Your task to perform on an android device: check google app version Image 0: 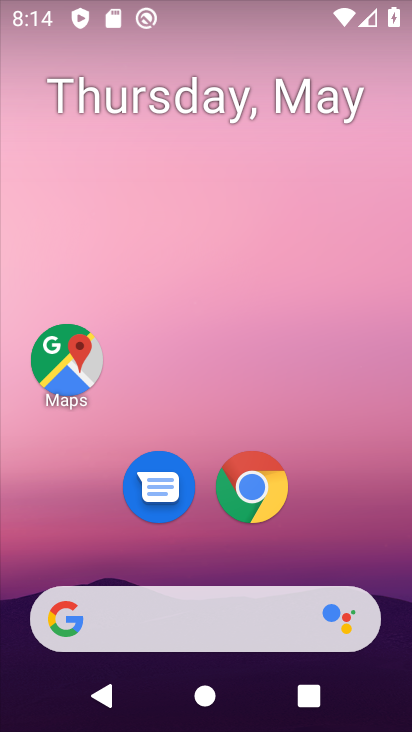
Step 0: drag from (355, 570) to (254, 8)
Your task to perform on an android device: check google app version Image 1: 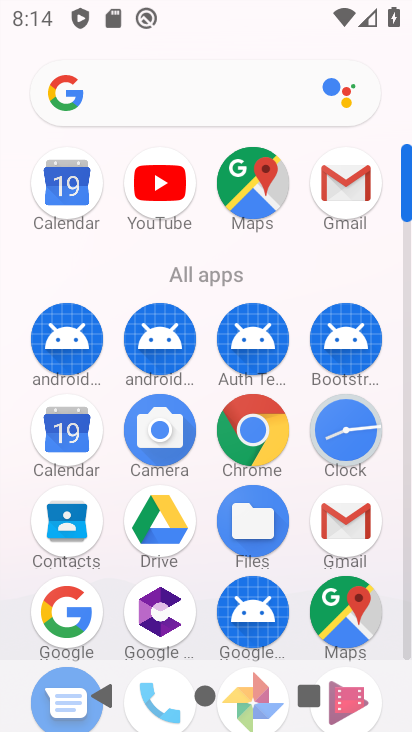
Step 1: click (68, 617)
Your task to perform on an android device: check google app version Image 2: 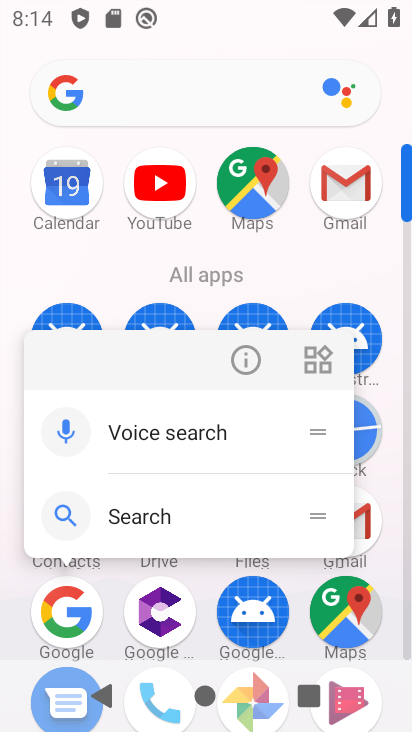
Step 2: click (257, 366)
Your task to perform on an android device: check google app version Image 3: 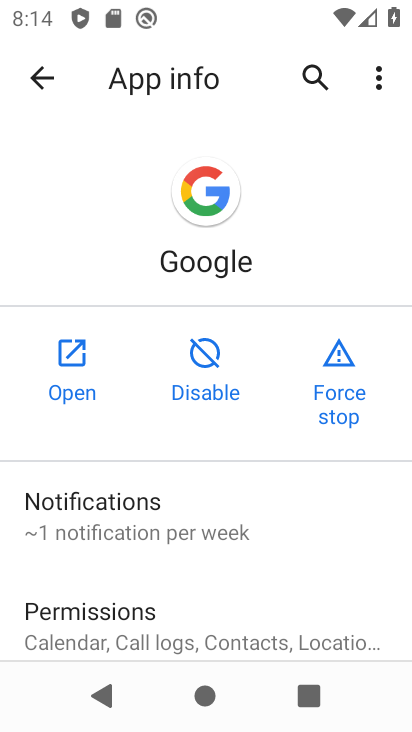
Step 3: drag from (295, 638) to (157, 11)
Your task to perform on an android device: check google app version Image 4: 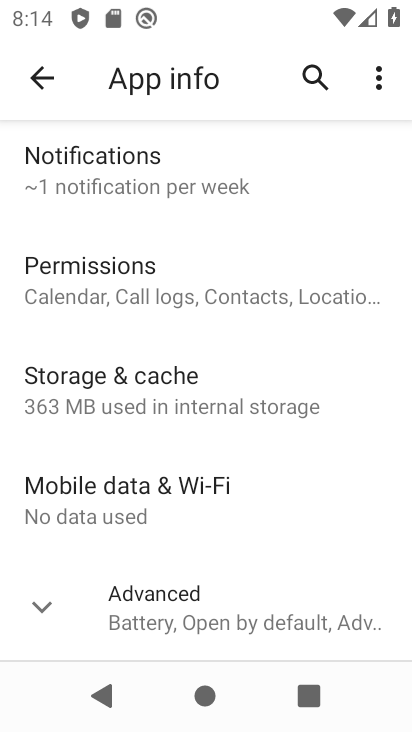
Step 4: click (220, 609)
Your task to perform on an android device: check google app version Image 5: 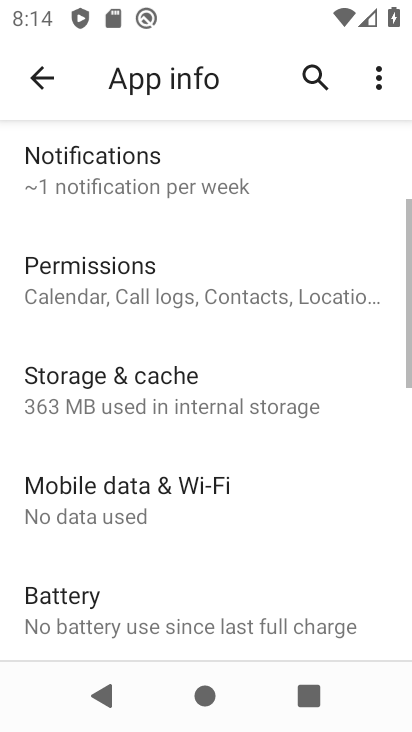
Step 5: task complete